Your task to perform on an android device: turn off airplane mode Image 0: 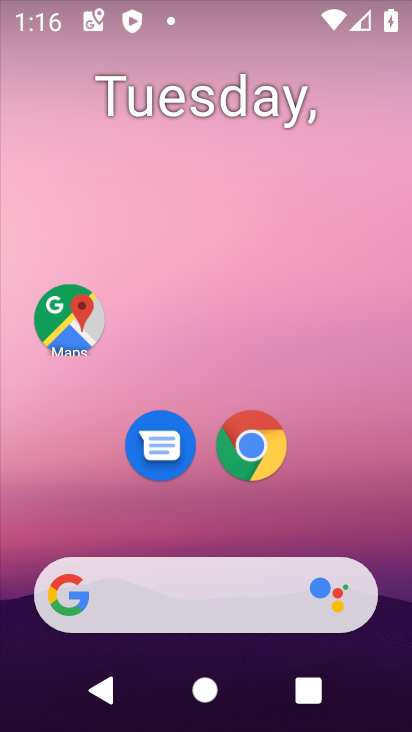
Step 0: press home button
Your task to perform on an android device: turn off airplane mode Image 1: 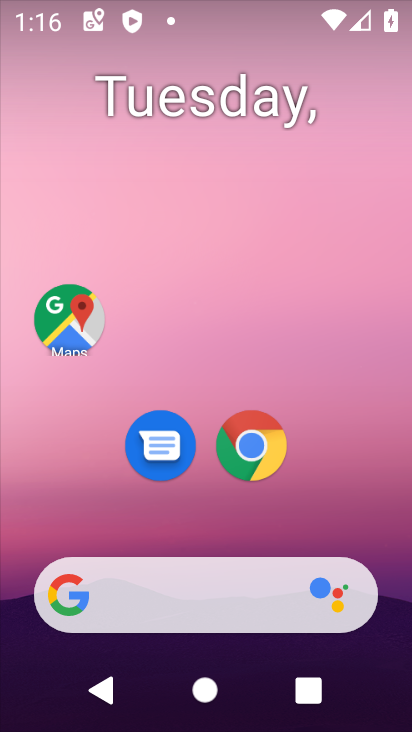
Step 1: task complete